Your task to perform on an android device: Search for pizza restaurants on Maps Image 0: 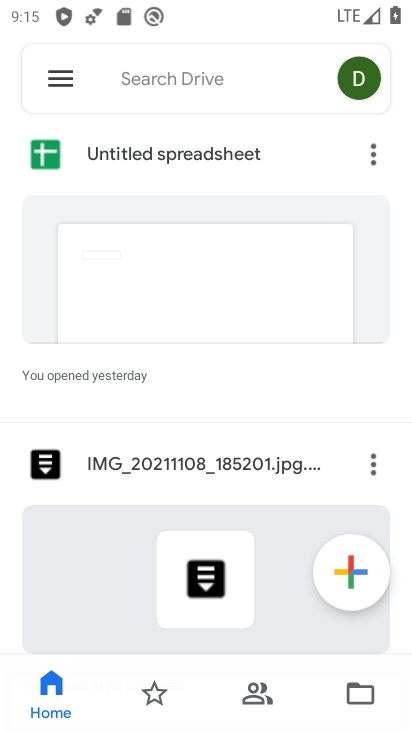
Step 0: press home button
Your task to perform on an android device: Search for pizza restaurants on Maps Image 1: 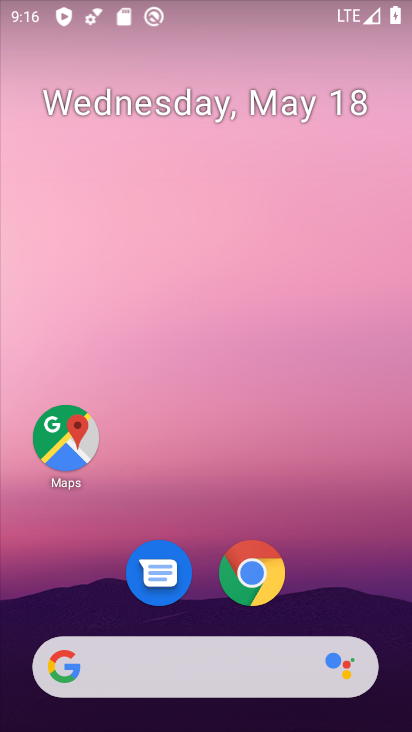
Step 1: click (73, 438)
Your task to perform on an android device: Search for pizza restaurants on Maps Image 2: 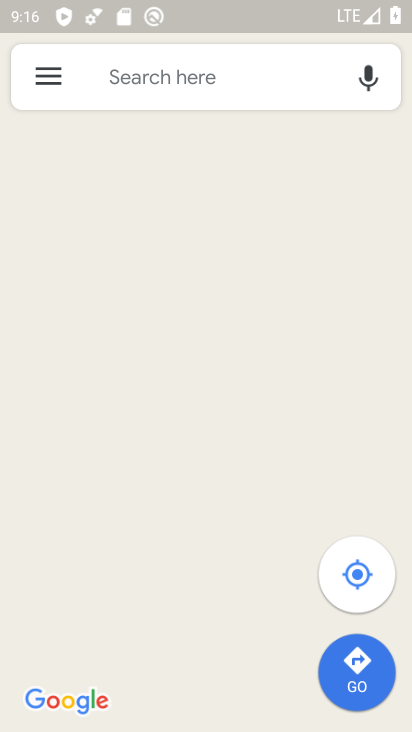
Step 2: click (183, 73)
Your task to perform on an android device: Search for pizza restaurants on Maps Image 3: 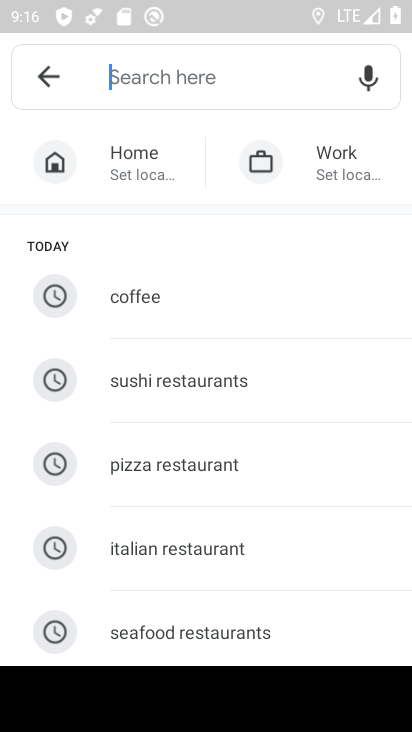
Step 3: type "pizza res"
Your task to perform on an android device: Search for pizza restaurants on Maps Image 4: 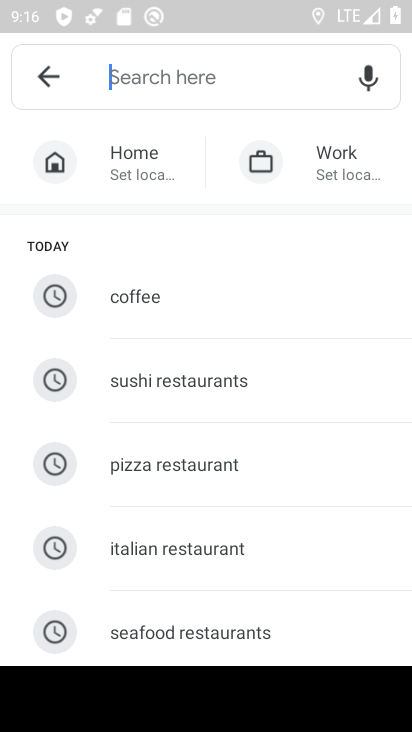
Step 4: click (321, 42)
Your task to perform on an android device: Search for pizza restaurants on Maps Image 5: 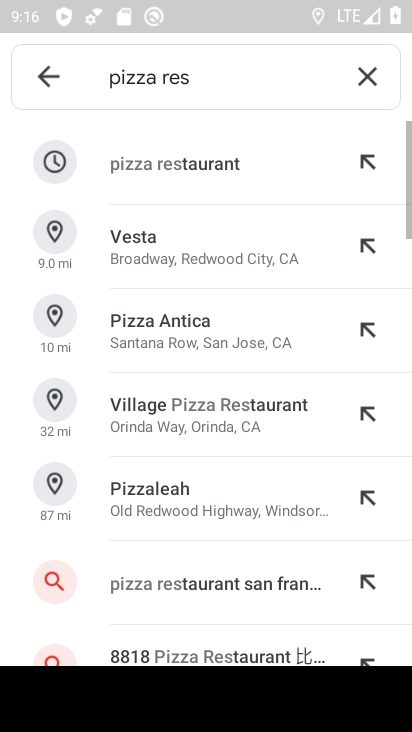
Step 5: click (239, 472)
Your task to perform on an android device: Search for pizza restaurants on Maps Image 6: 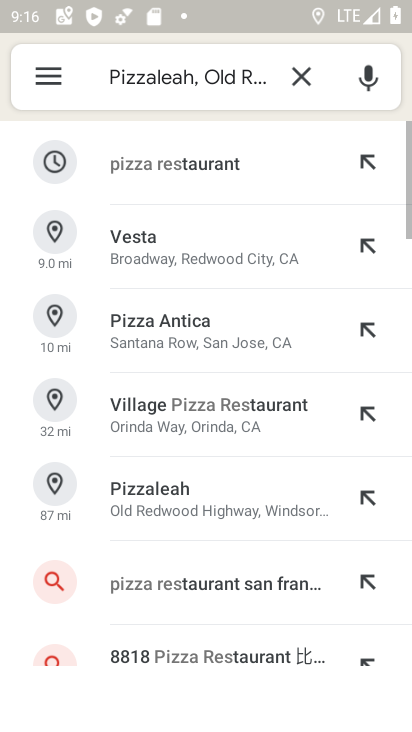
Step 6: click (268, 176)
Your task to perform on an android device: Search for pizza restaurants on Maps Image 7: 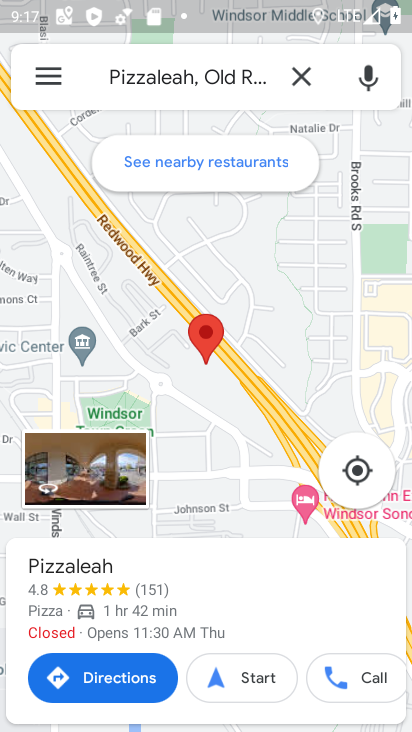
Step 7: task complete